Your task to perform on an android device: change the clock display to show seconds Image 0: 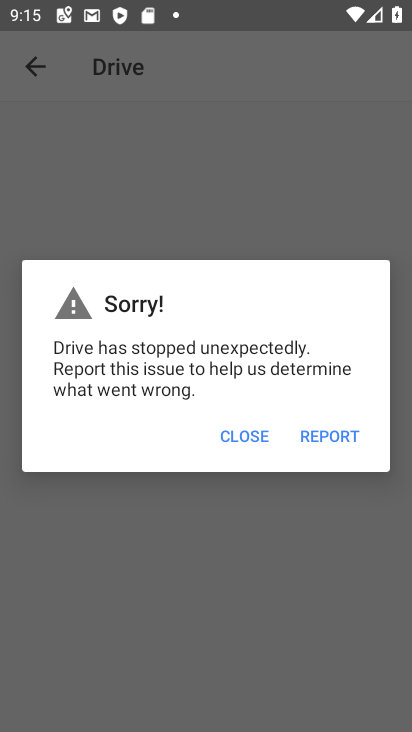
Step 0: press home button
Your task to perform on an android device: change the clock display to show seconds Image 1: 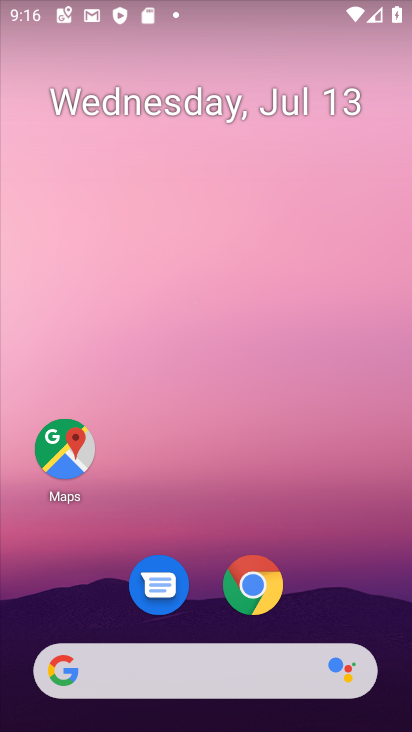
Step 1: drag from (250, 505) to (270, 0)
Your task to perform on an android device: change the clock display to show seconds Image 2: 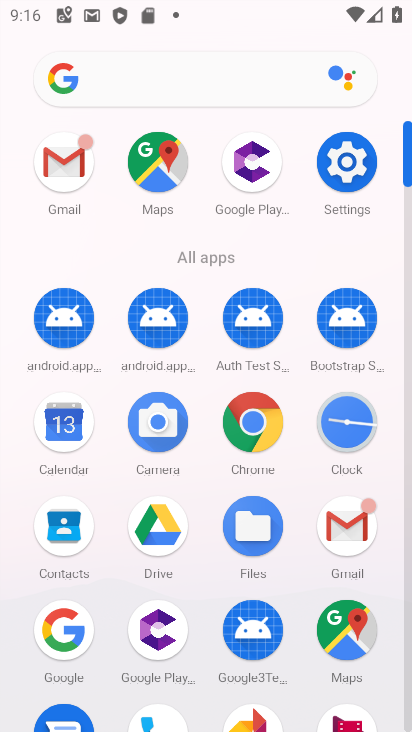
Step 2: click (353, 418)
Your task to perform on an android device: change the clock display to show seconds Image 3: 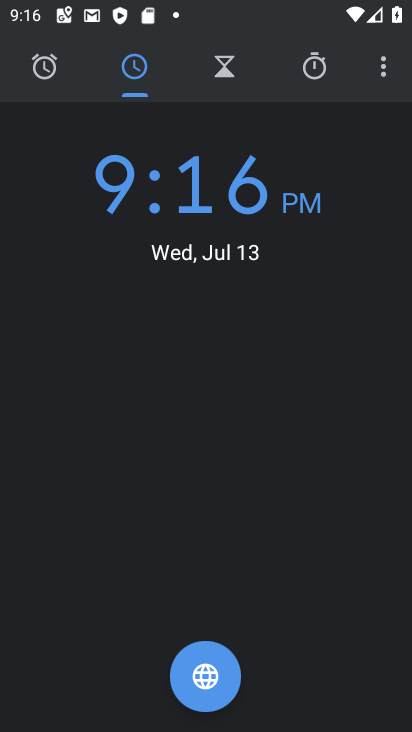
Step 3: click (382, 71)
Your task to perform on an android device: change the clock display to show seconds Image 4: 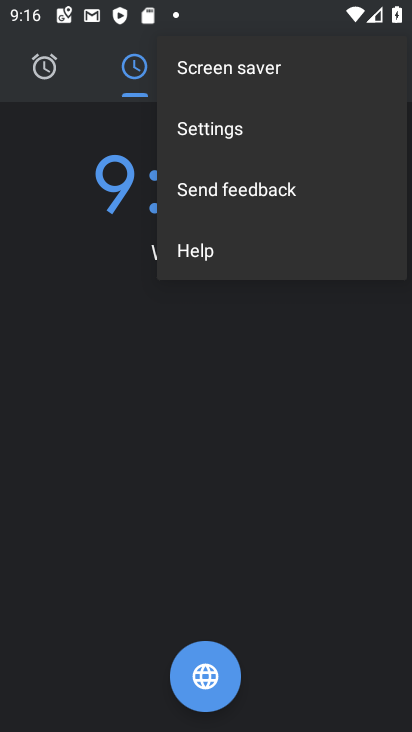
Step 4: click (276, 129)
Your task to perform on an android device: change the clock display to show seconds Image 5: 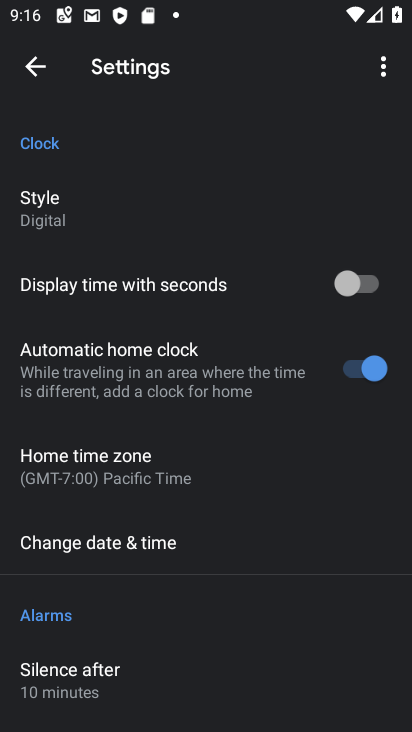
Step 5: click (365, 288)
Your task to perform on an android device: change the clock display to show seconds Image 6: 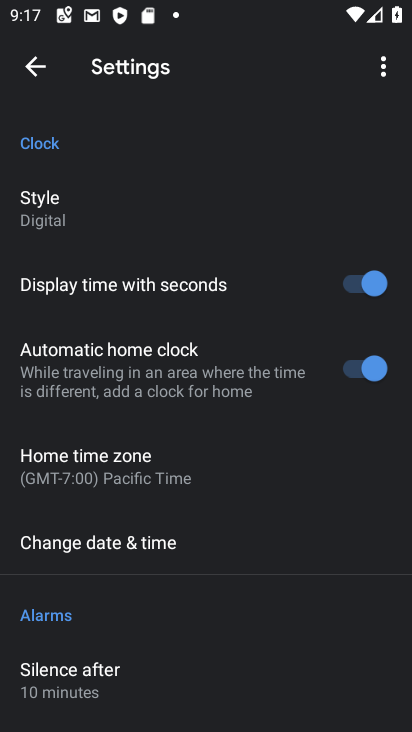
Step 6: task complete